Your task to perform on an android device: change alarm snooze length Image 0: 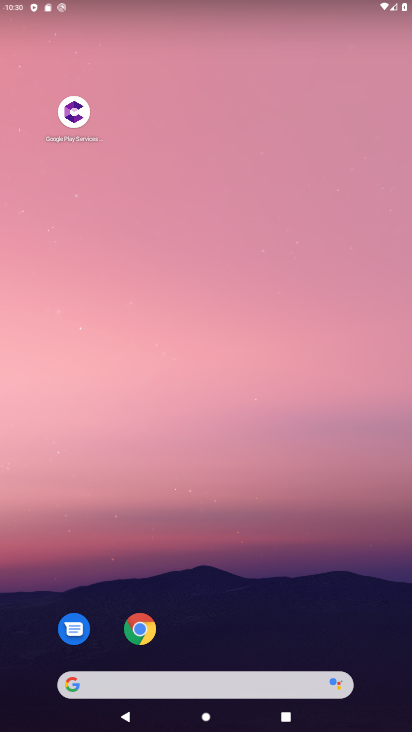
Step 0: drag from (213, 644) to (200, 141)
Your task to perform on an android device: change alarm snooze length Image 1: 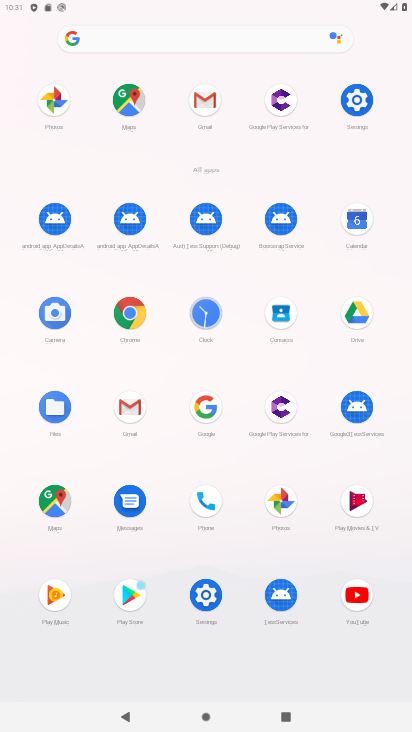
Step 1: click (200, 317)
Your task to perform on an android device: change alarm snooze length Image 2: 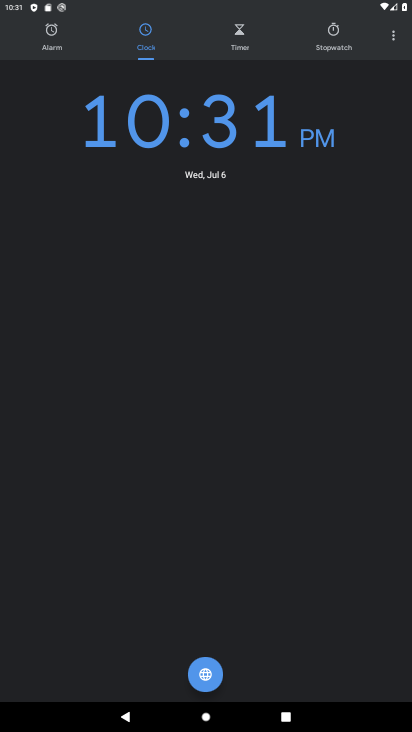
Step 2: click (391, 32)
Your task to perform on an android device: change alarm snooze length Image 3: 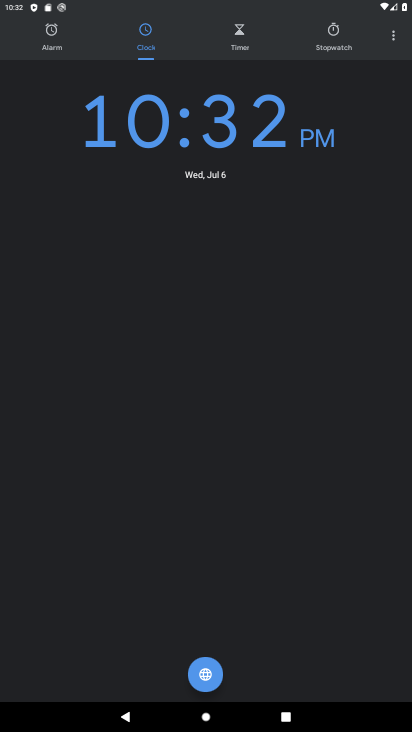
Step 3: click (392, 34)
Your task to perform on an android device: change alarm snooze length Image 4: 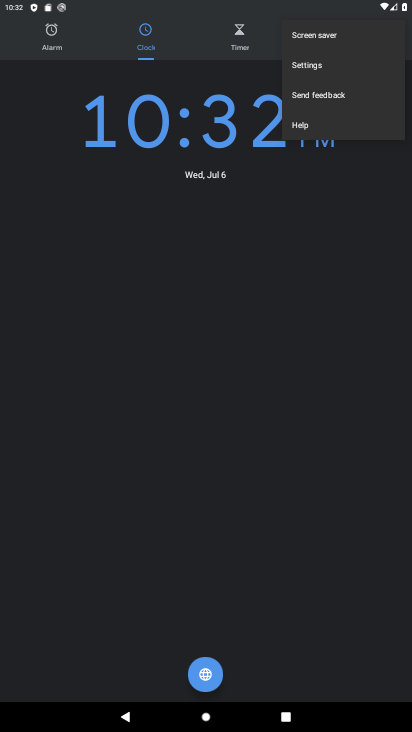
Step 4: click (340, 67)
Your task to perform on an android device: change alarm snooze length Image 5: 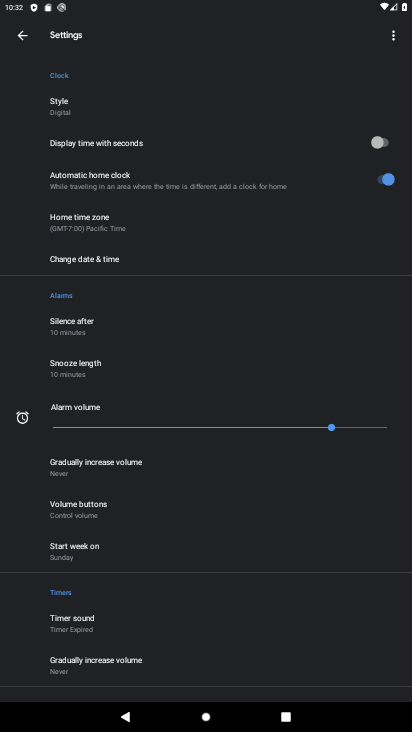
Step 5: click (120, 365)
Your task to perform on an android device: change alarm snooze length Image 6: 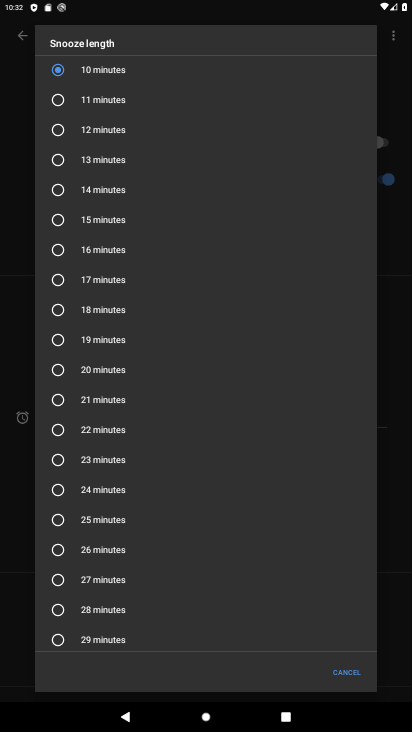
Step 6: click (59, 184)
Your task to perform on an android device: change alarm snooze length Image 7: 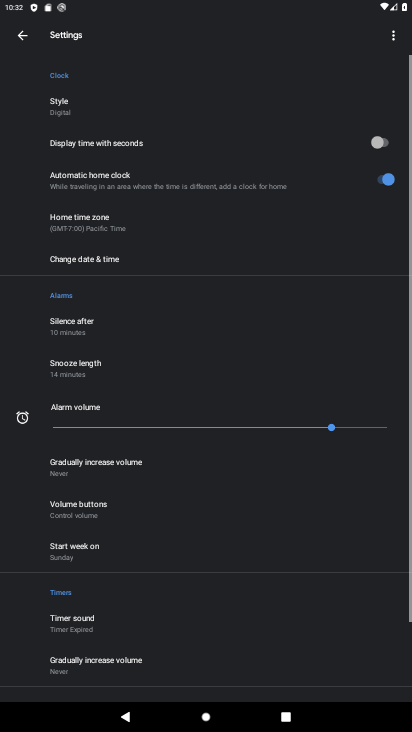
Step 7: task complete